Your task to perform on an android device: Open Reddit.com Image 0: 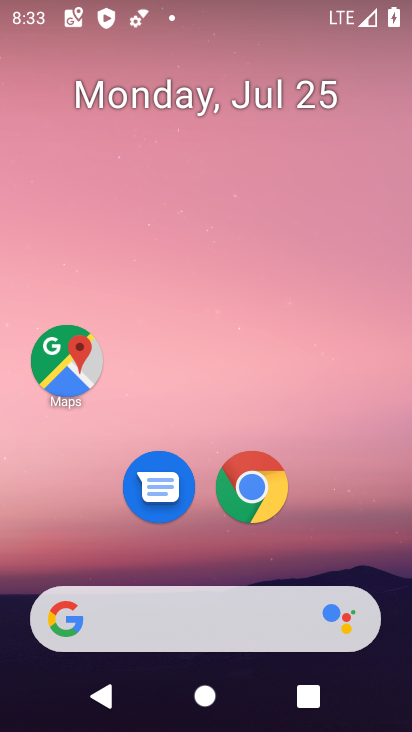
Step 0: click (235, 477)
Your task to perform on an android device: Open Reddit.com Image 1: 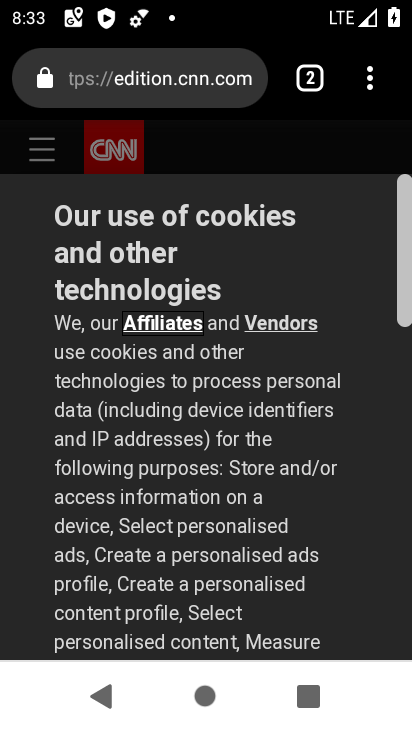
Step 1: click (310, 79)
Your task to perform on an android device: Open Reddit.com Image 2: 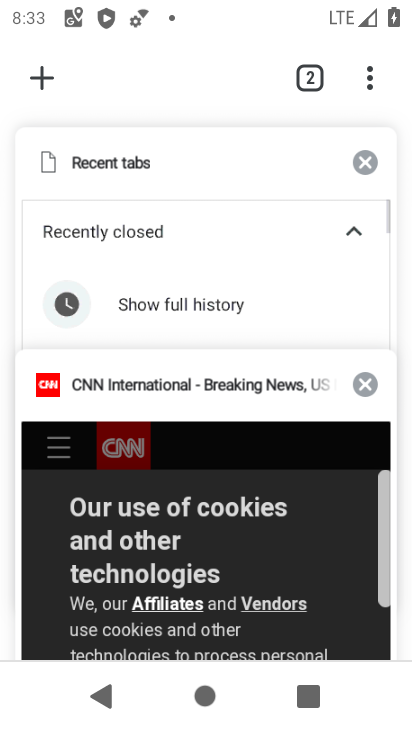
Step 2: click (41, 73)
Your task to perform on an android device: Open Reddit.com Image 3: 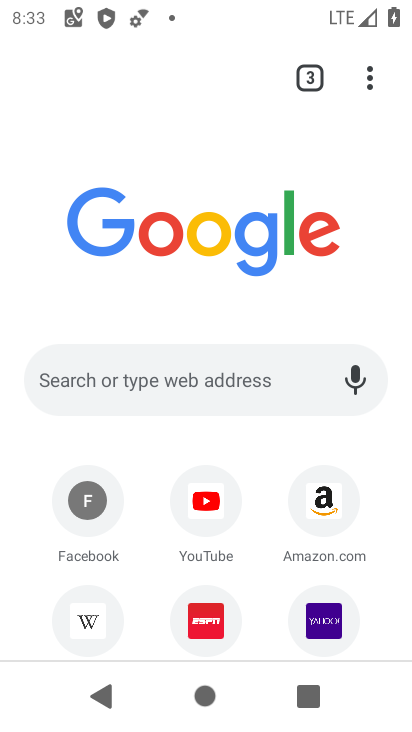
Step 3: click (170, 376)
Your task to perform on an android device: Open Reddit.com Image 4: 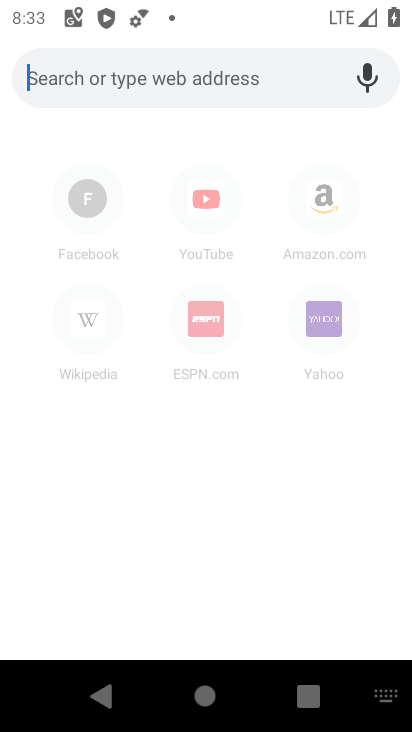
Step 4: type "reddit.com"
Your task to perform on an android device: Open Reddit.com Image 5: 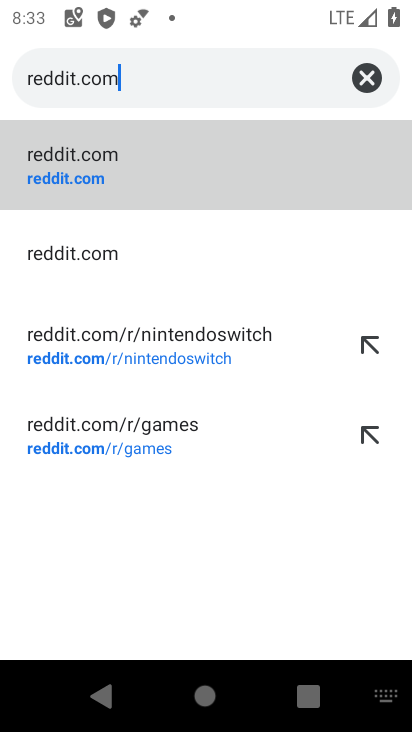
Step 5: click (193, 163)
Your task to perform on an android device: Open Reddit.com Image 6: 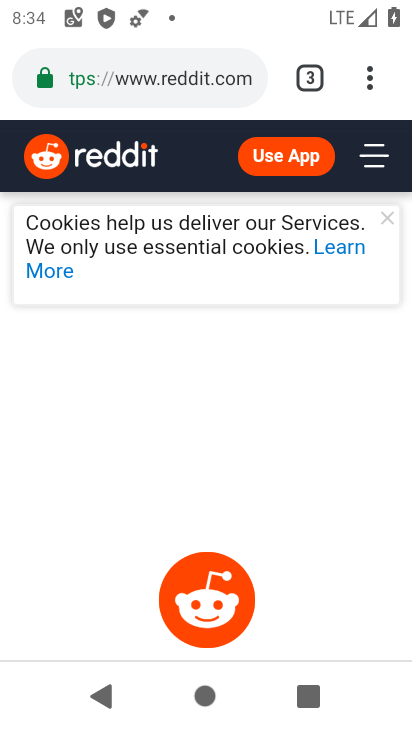
Step 6: task complete